Your task to perform on an android device: What's a good restaurant in Philadelphia? Image 0: 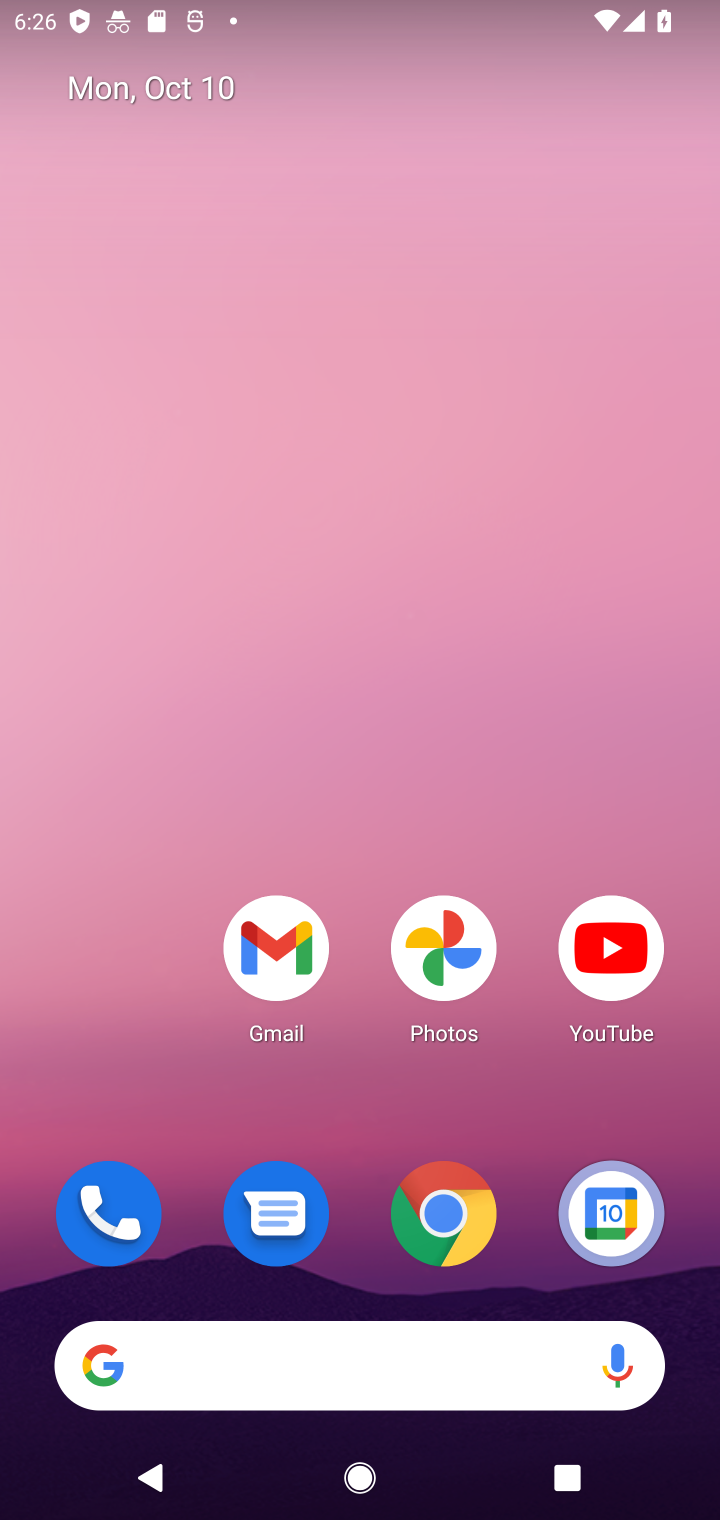
Step 0: drag from (271, 230) to (277, 158)
Your task to perform on an android device: What's a good restaurant in Philadelphia? Image 1: 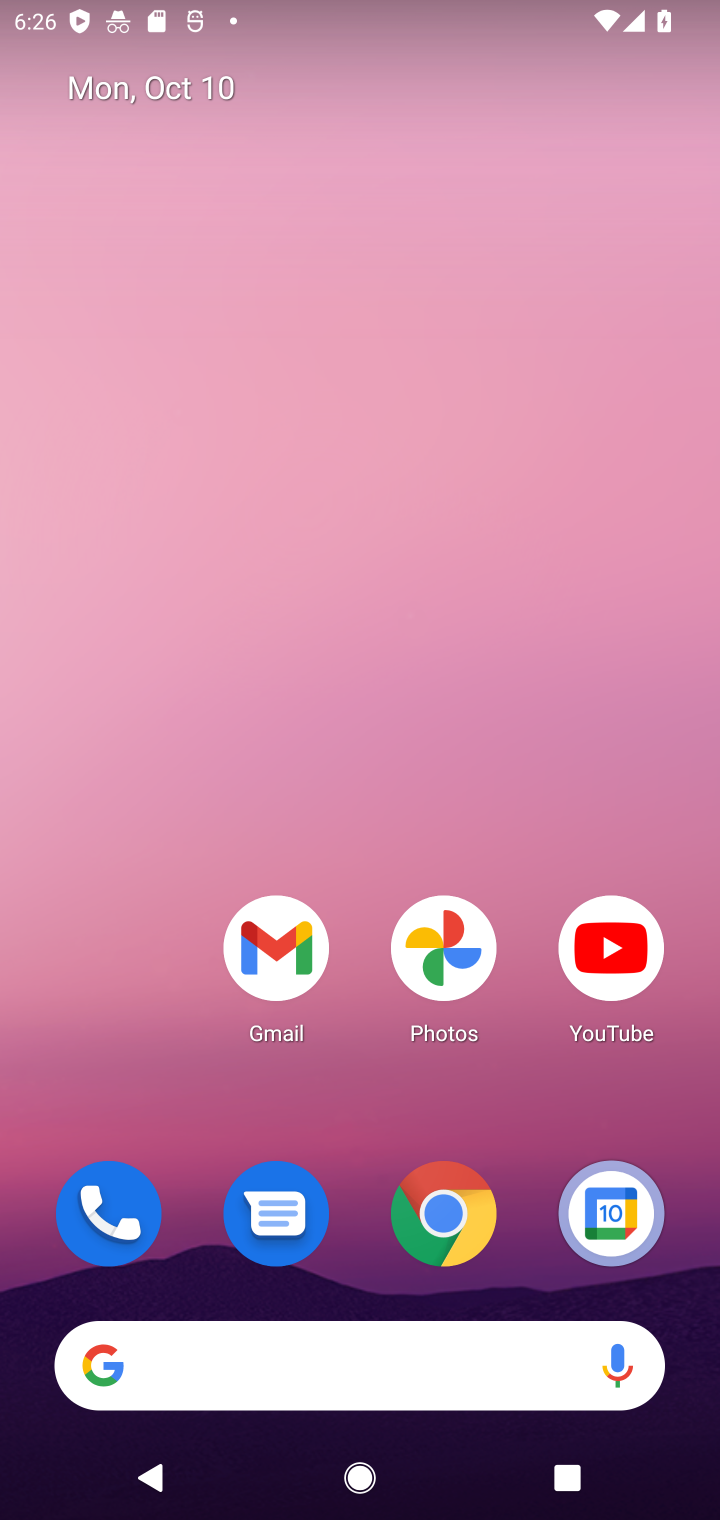
Step 1: drag from (252, 404) to (304, 9)
Your task to perform on an android device: What's a good restaurant in Philadelphia? Image 2: 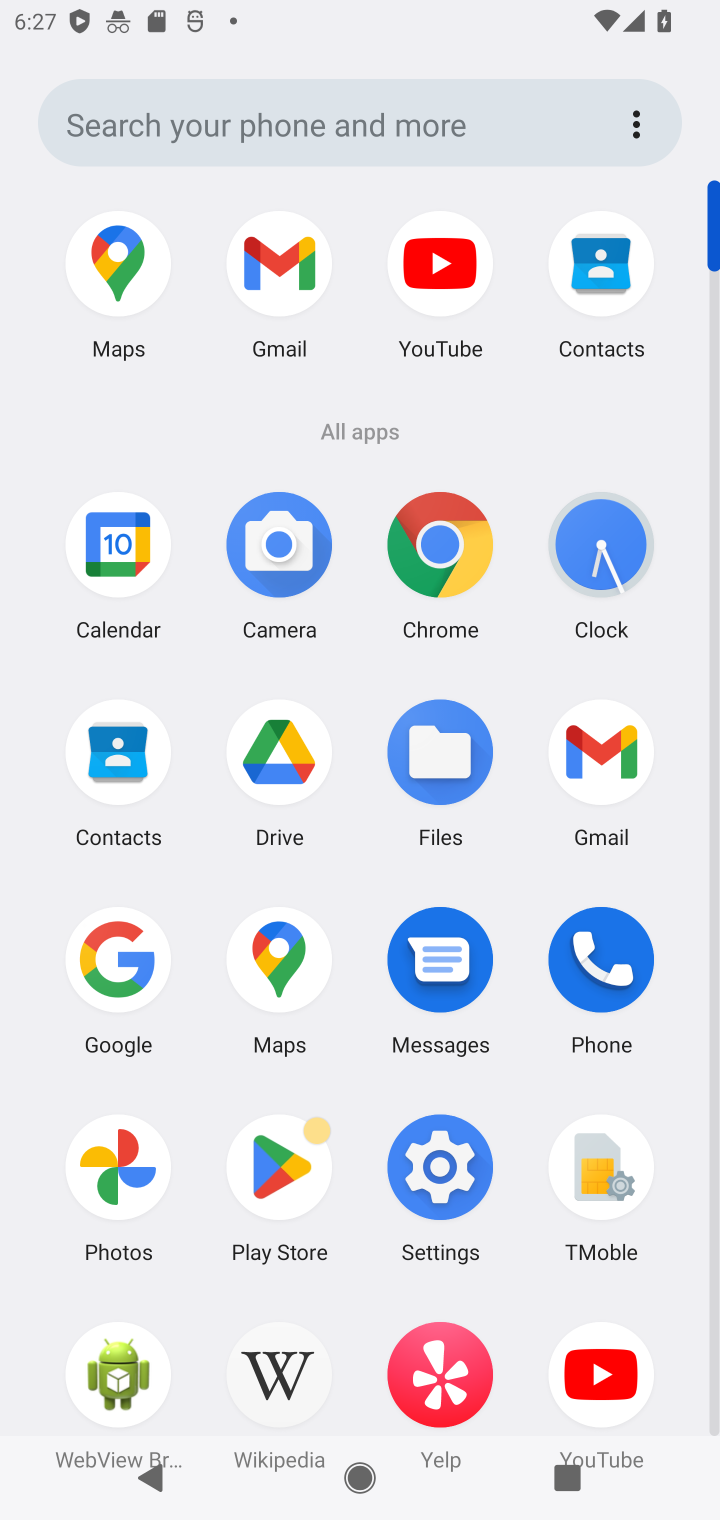
Step 2: click (83, 983)
Your task to perform on an android device: What's a good restaurant in Philadelphia? Image 3: 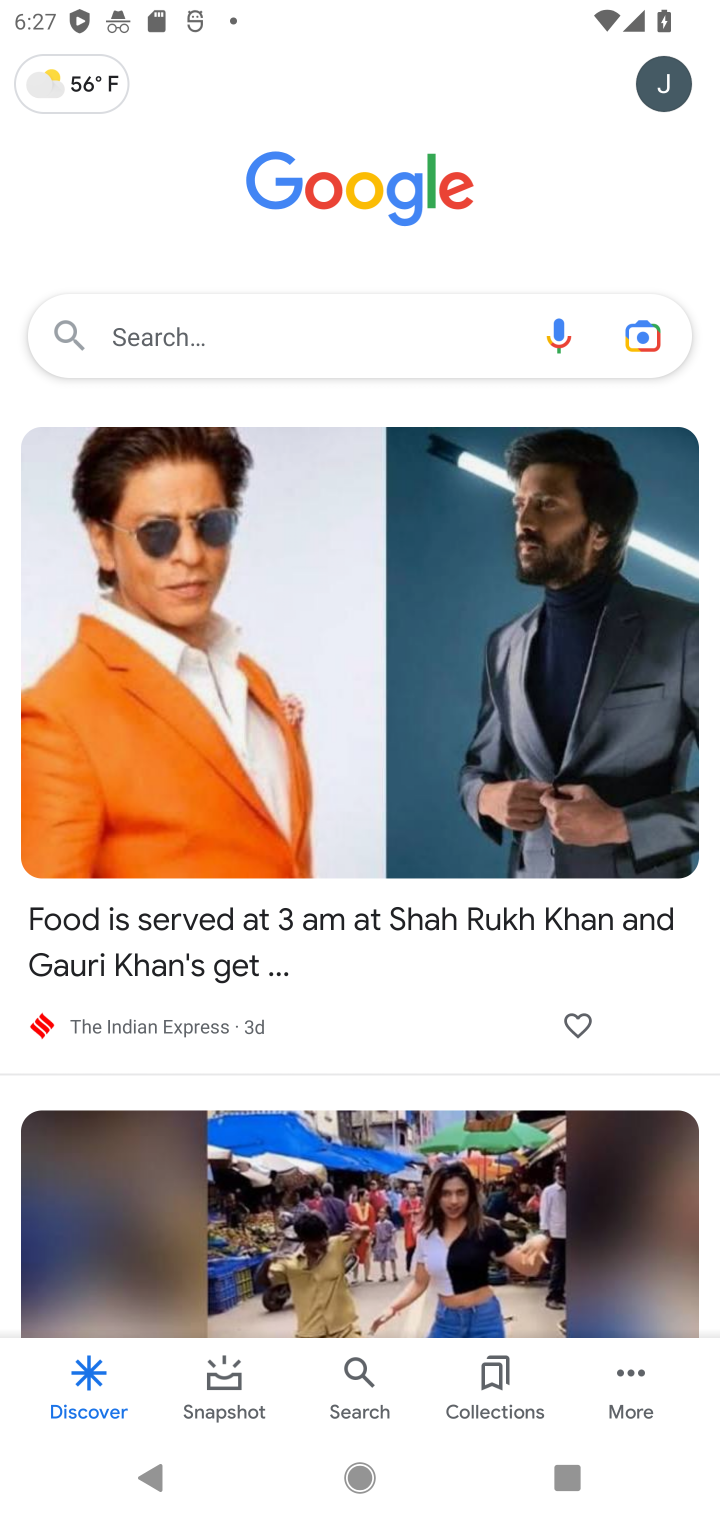
Step 3: click (332, 341)
Your task to perform on an android device: What's a good restaurant in Philadelphia? Image 4: 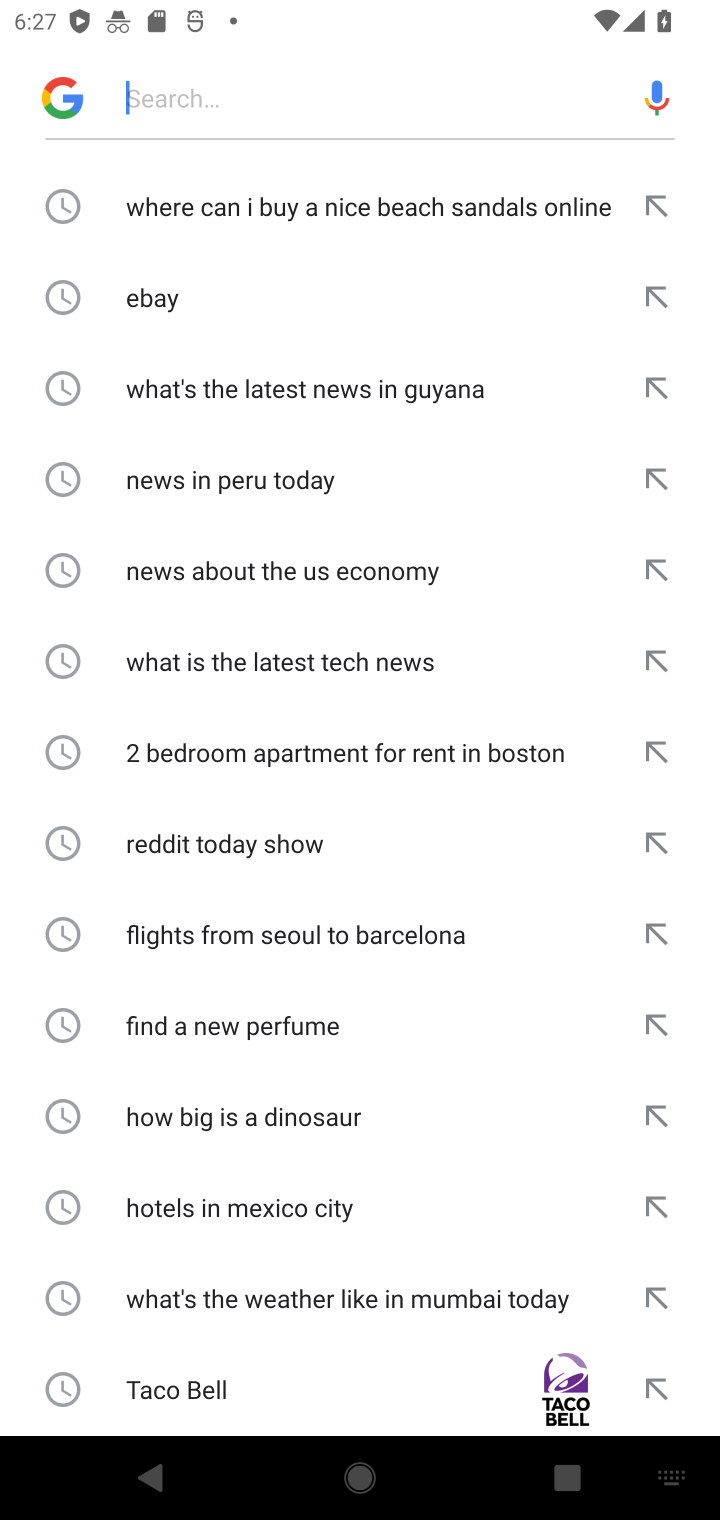
Step 4: click (181, 63)
Your task to perform on an android device: What's a good restaurant in Philadelphia? Image 5: 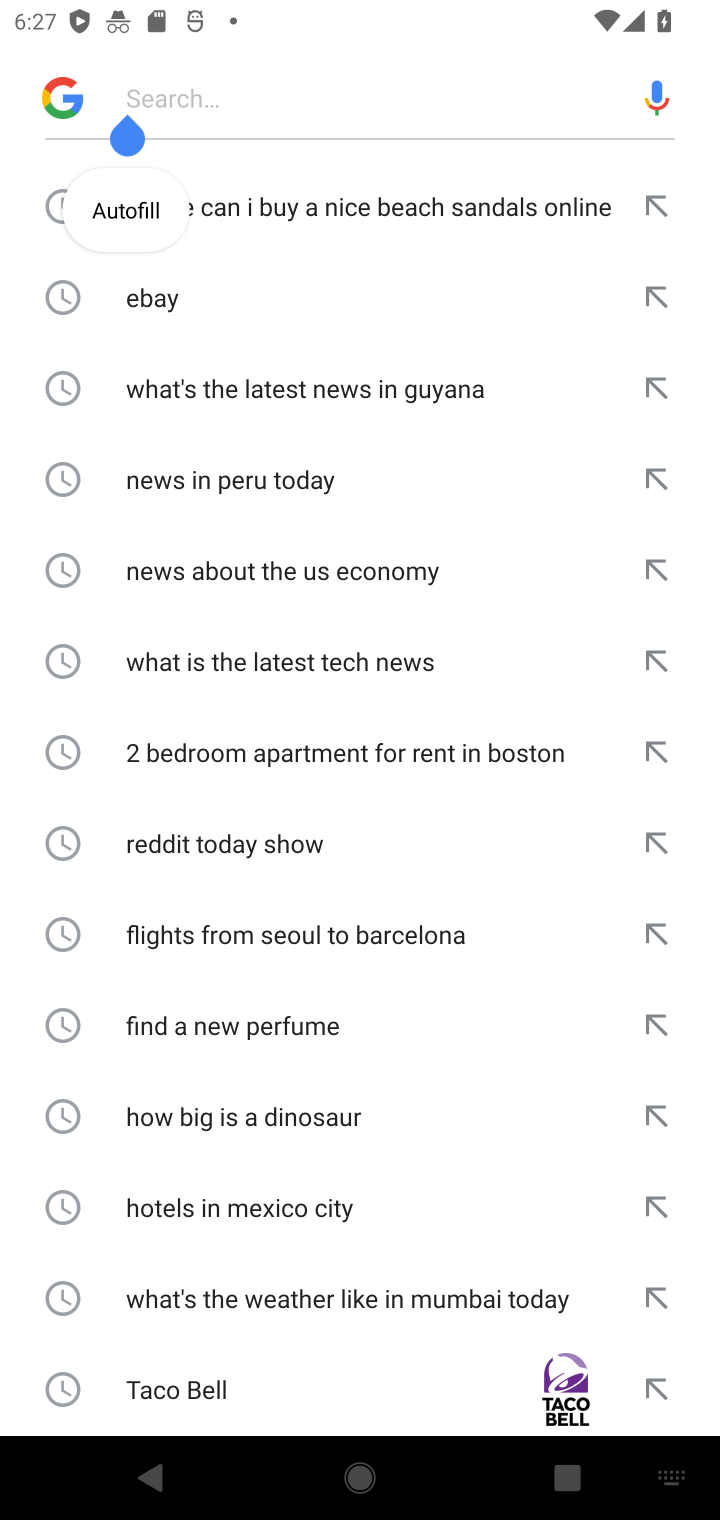
Step 5: type "What's a good restaurant in Philadelphia?"
Your task to perform on an android device: What's a good restaurant in Philadelphia? Image 6: 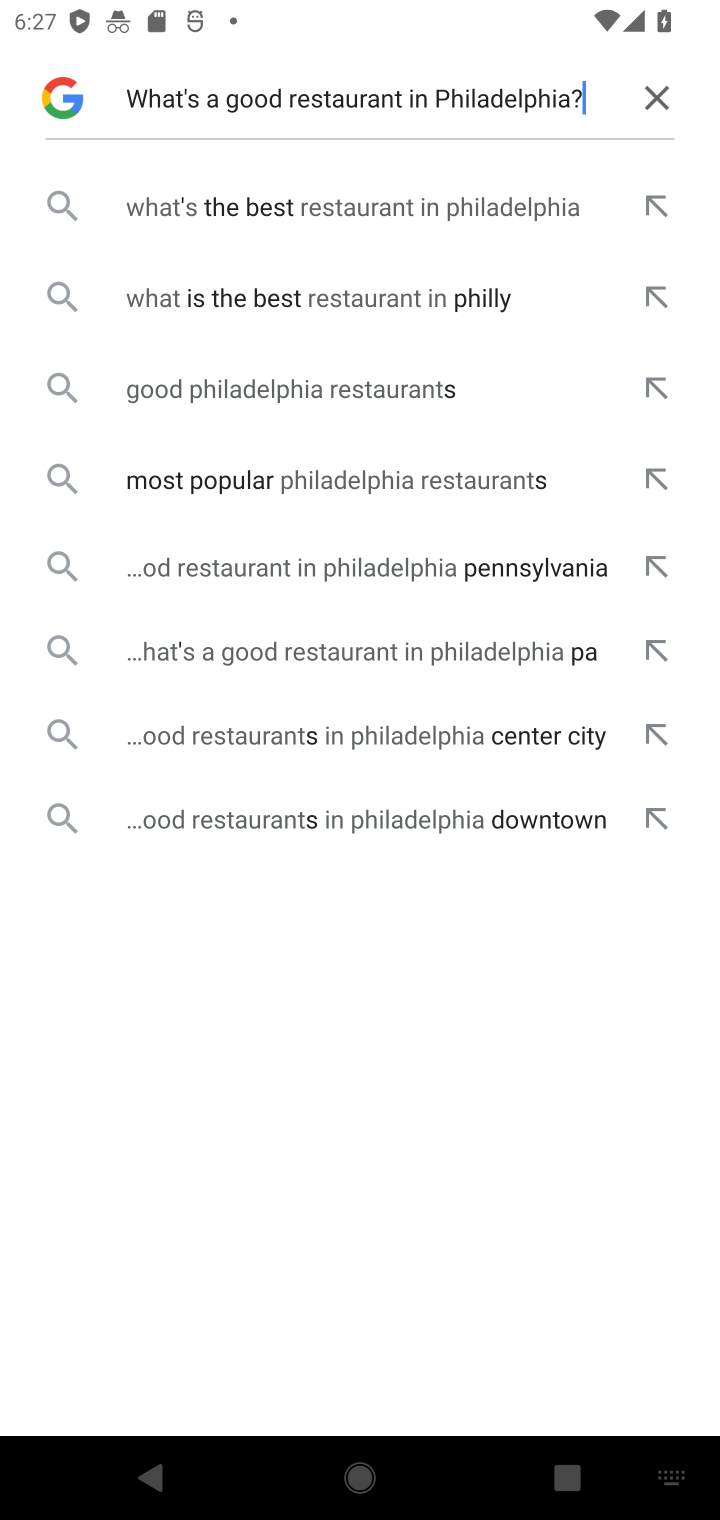
Step 6: click (255, 227)
Your task to perform on an android device: What's a good restaurant in Philadelphia? Image 7: 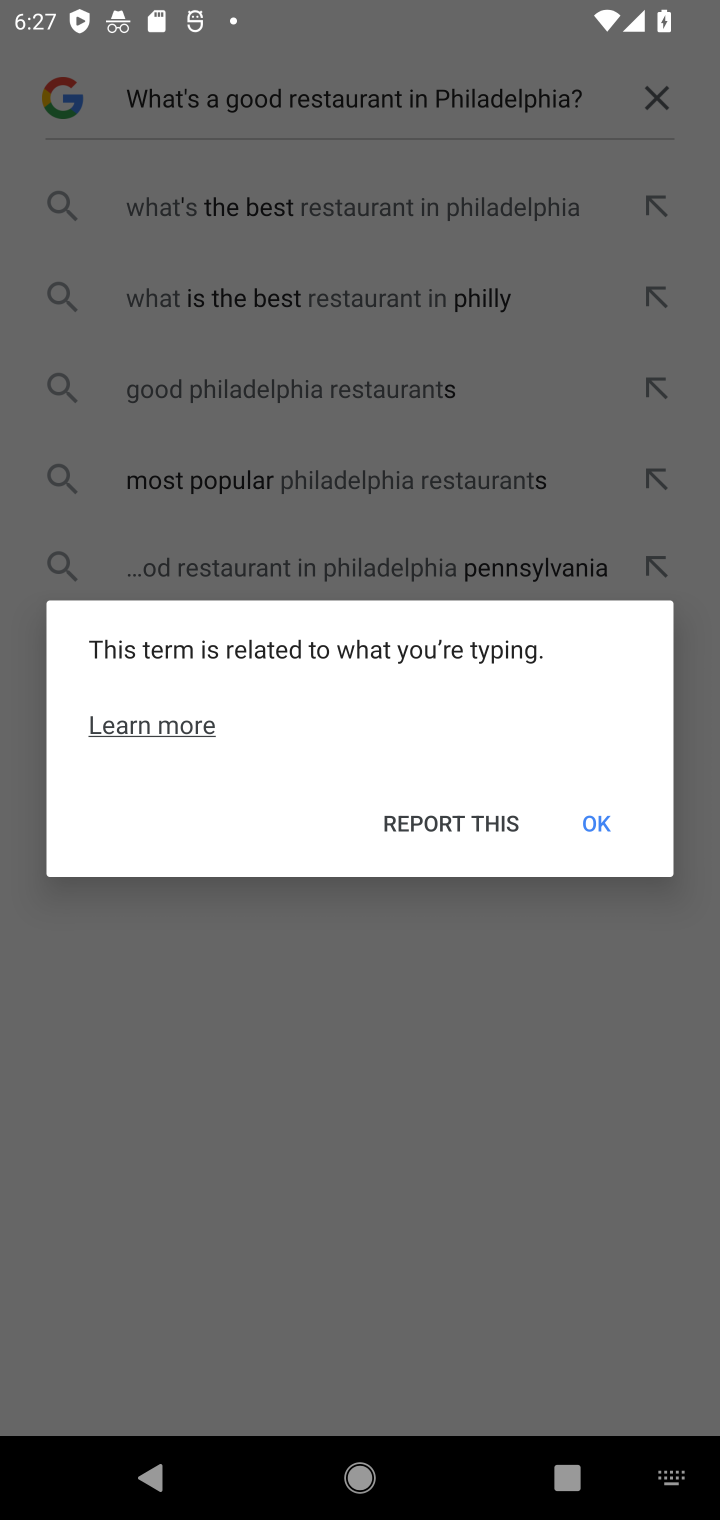
Step 7: click (619, 843)
Your task to perform on an android device: What's a good restaurant in Philadelphia? Image 8: 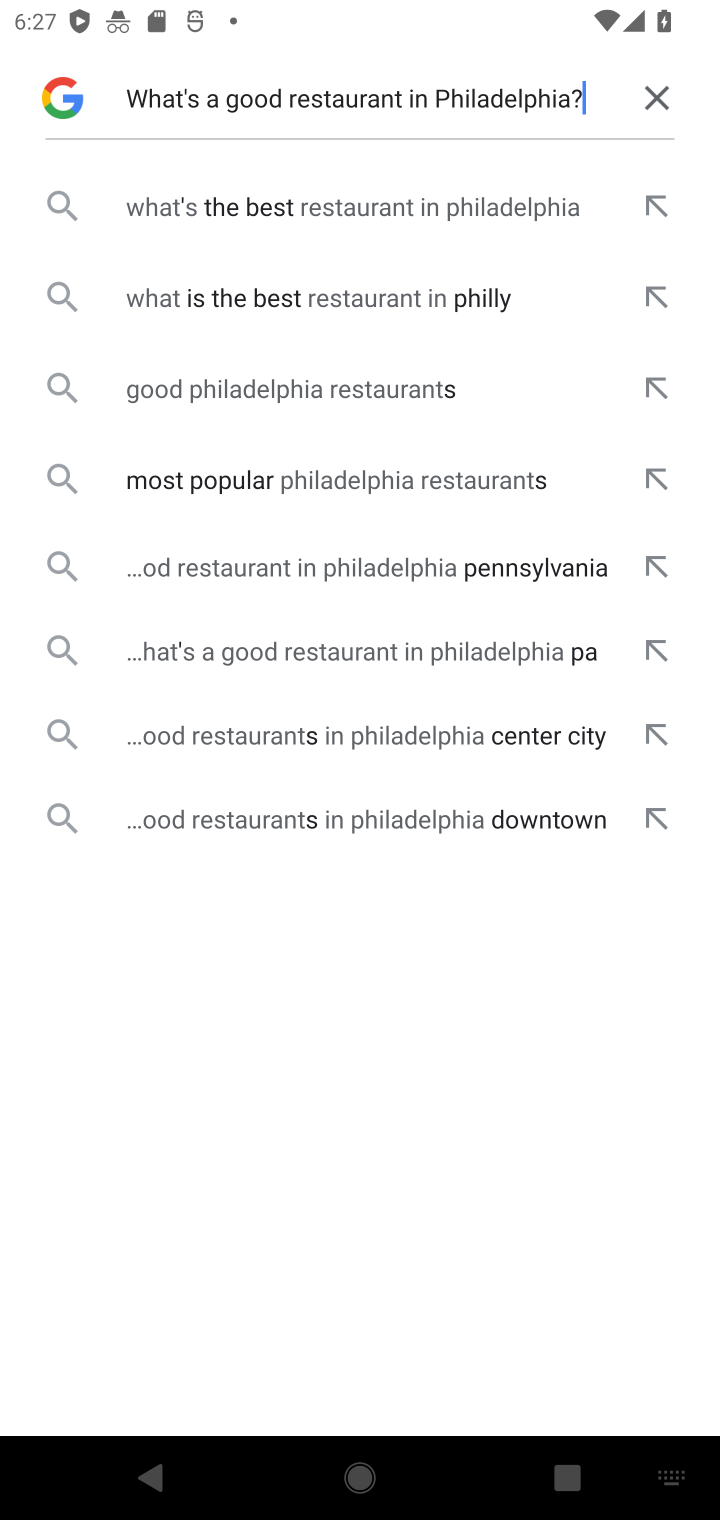
Step 8: click (290, 190)
Your task to perform on an android device: What's a good restaurant in Philadelphia? Image 9: 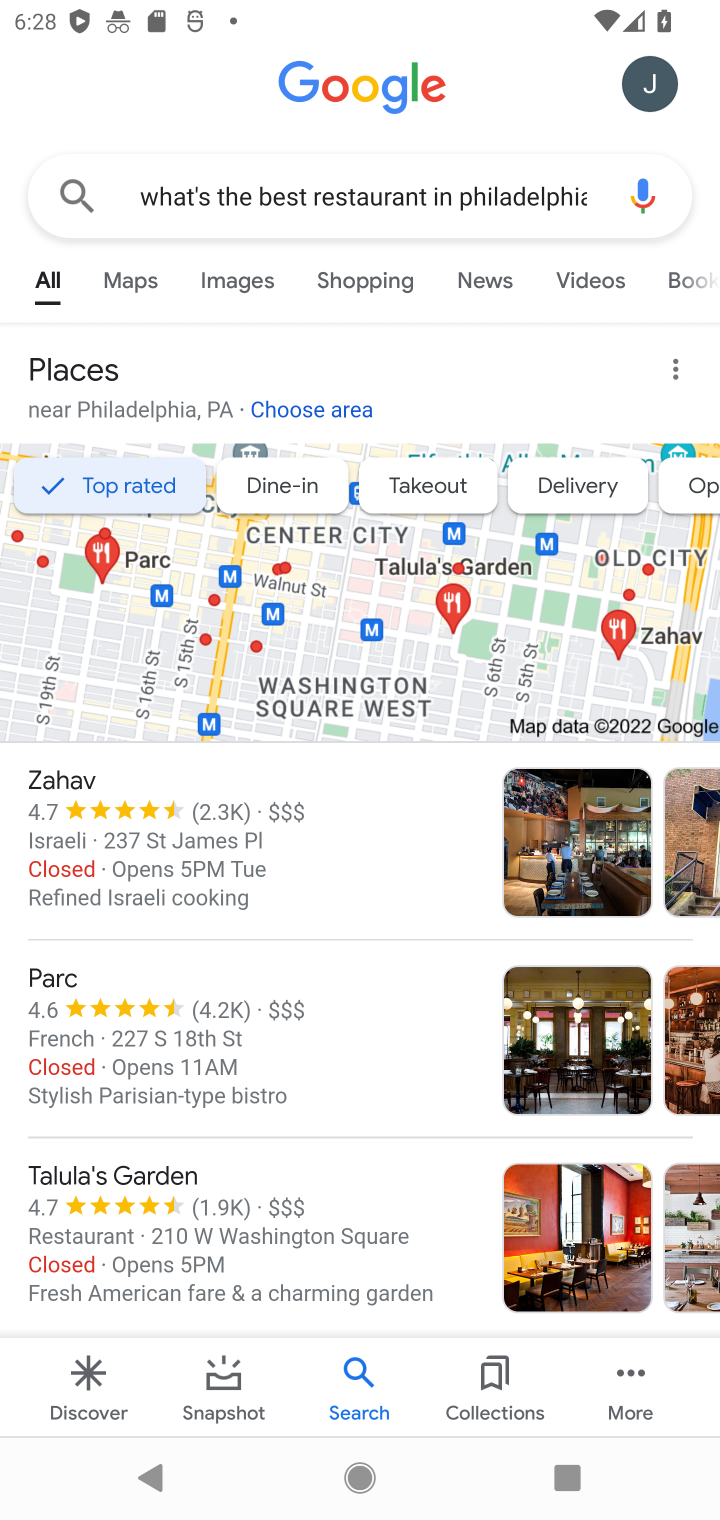
Step 9: task complete